Your task to perform on an android device: change keyboard looks Image 0: 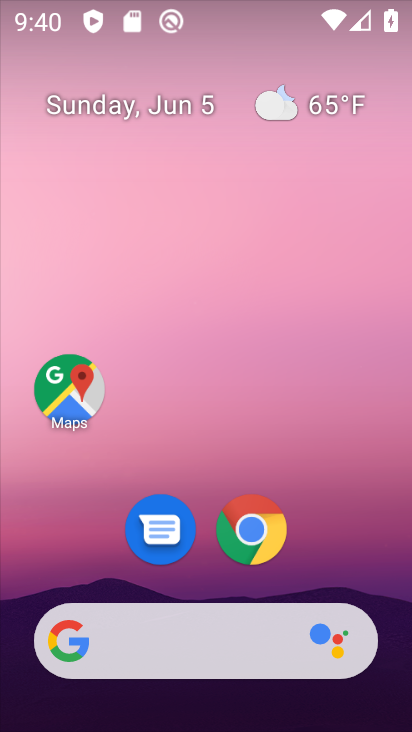
Step 0: drag from (242, 698) to (89, 2)
Your task to perform on an android device: change keyboard looks Image 1: 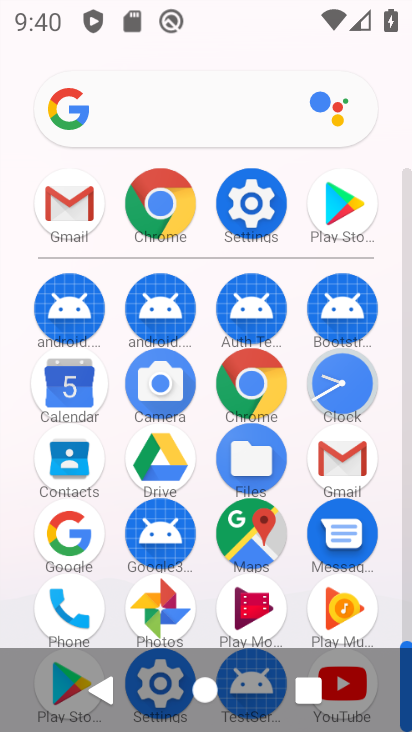
Step 1: click (257, 204)
Your task to perform on an android device: change keyboard looks Image 2: 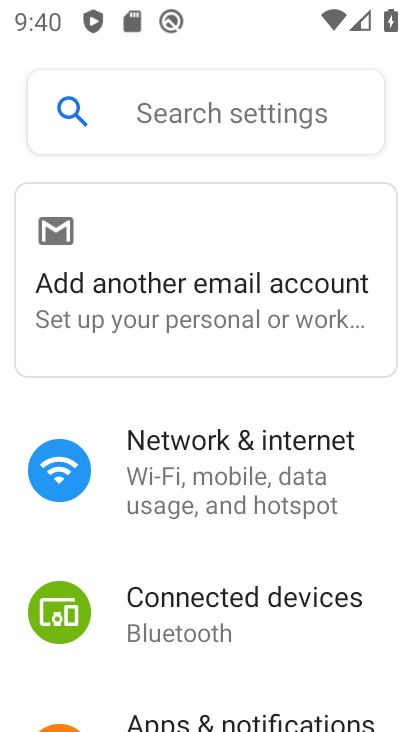
Step 2: drag from (319, 673) to (291, 27)
Your task to perform on an android device: change keyboard looks Image 3: 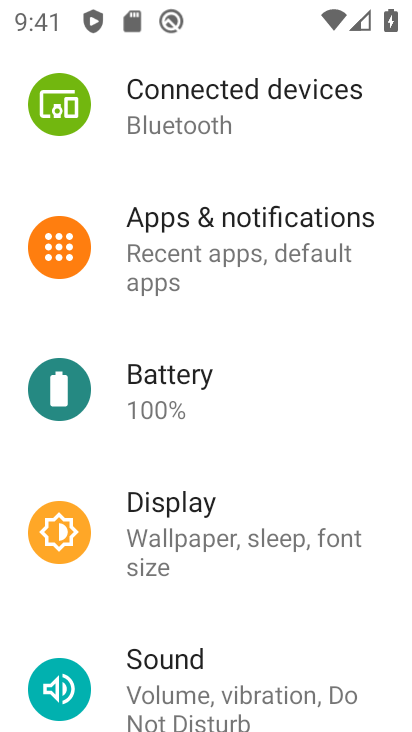
Step 3: drag from (279, 634) to (218, 101)
Your task to perform on an android device: change keyboard looks Image 4: 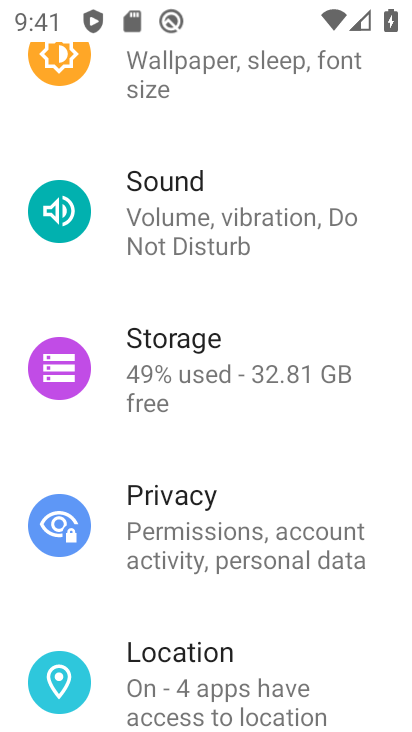
Step 4: drag from (255, 680) to (243, 51)
Your task to perform on an android device: change keyboard looks Image 5: 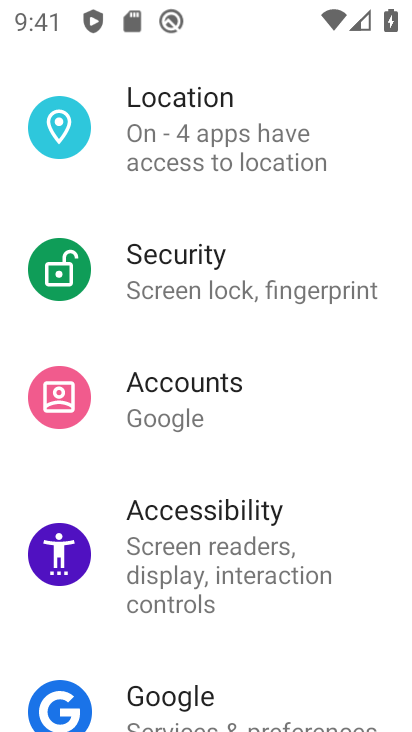
Step 5: drag from (294, 686) to (344, 49)
Your task to perform on an android device: change keyboard looks Image 6: 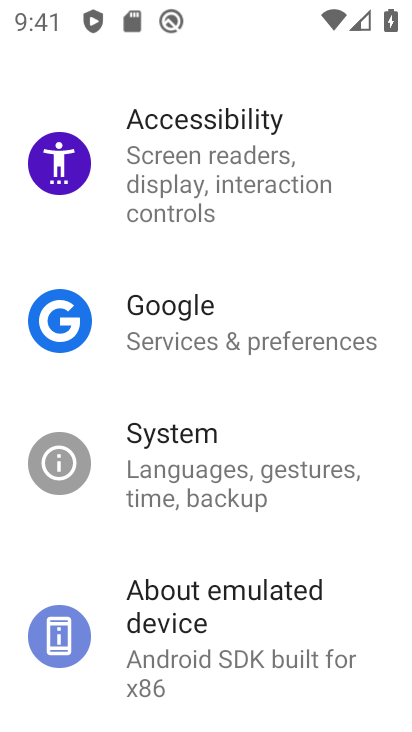
Step 6: click (266, 497)
Your task to perform on an android device: change keyboard looks Image 7: 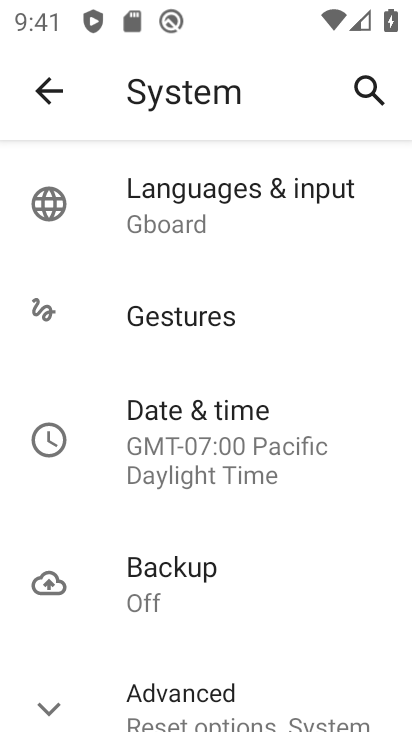
Step 7: click (253, 199)
Your task to perform on an android device: change keyboard looks Image 8: 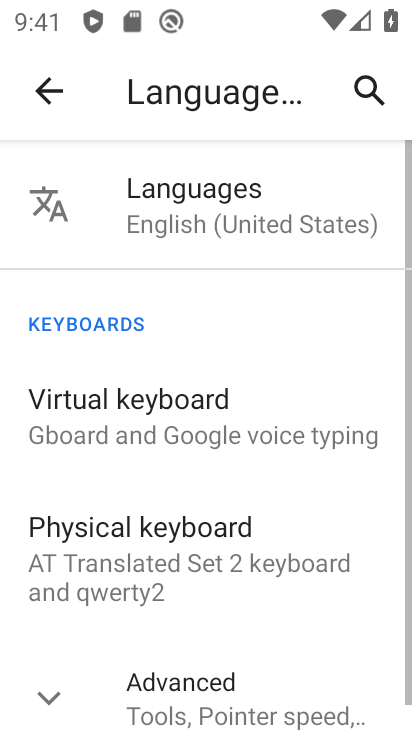
Step 8: click (148, 416)
Your task to perform on an android device: change keyboard looks Image 9: 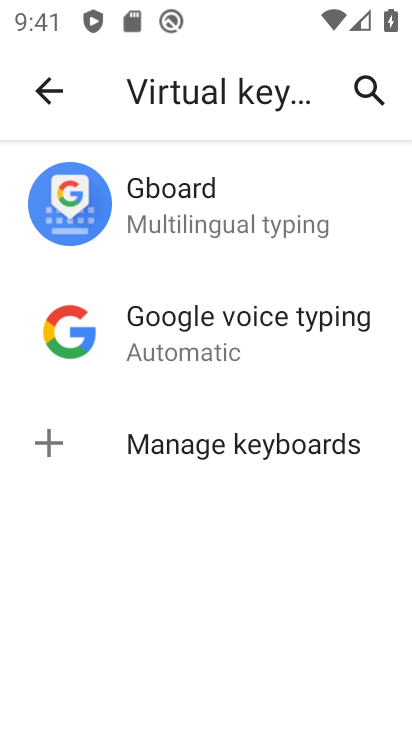
Step 9: click (211, 180)
Your task to perform on an android device: change keyboard looks Image 10: 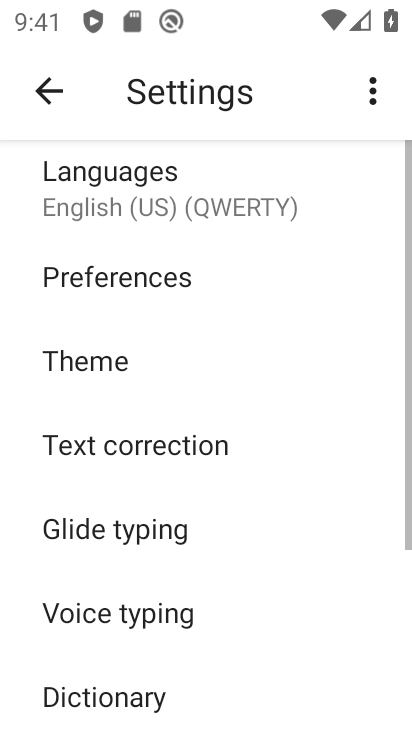
Step 10: click (106, 375)
Your task to perform on an android device: change keyboard looks Image 11: 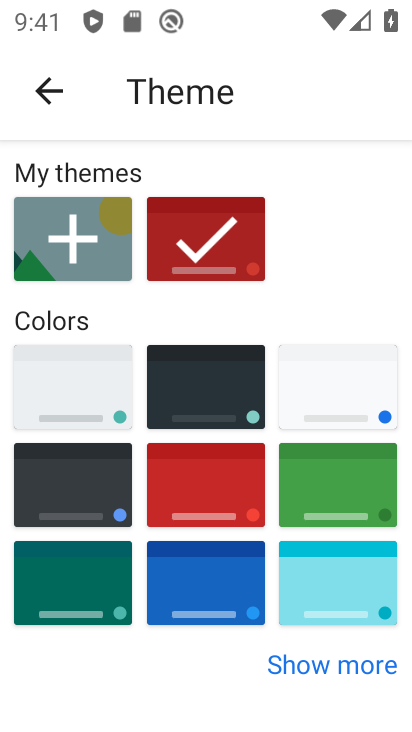
Step 11: click (206, 462)
Your task to perform on an android device: change keyboard looks Image 12: 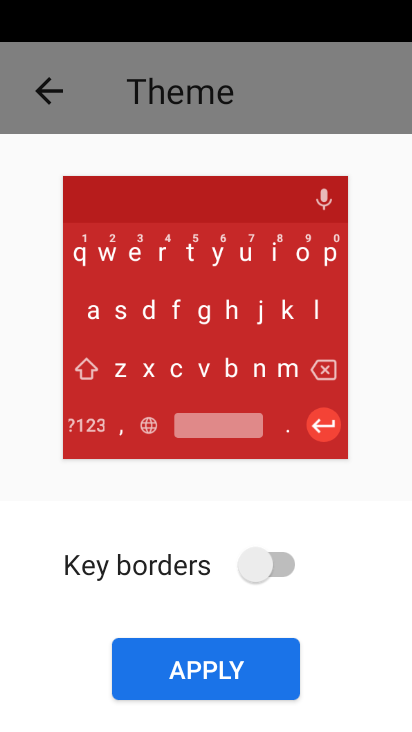
Step 12: click (262, 662)
Your task to perform on an android device: change keyboard looks Image 13: 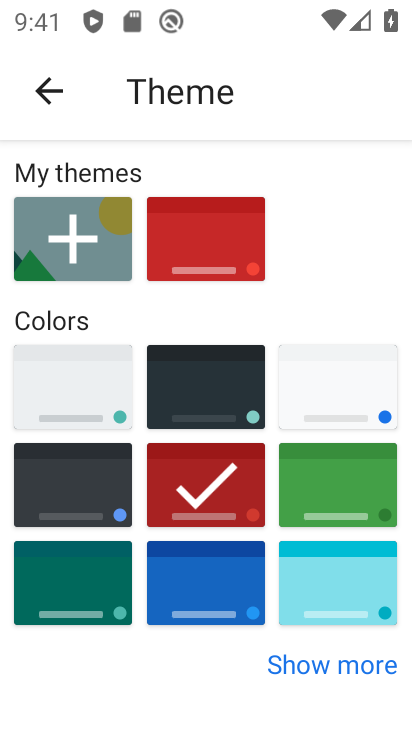
Step 13: task complete